Your task to perform on an android device: all mails in gmail Image 0: 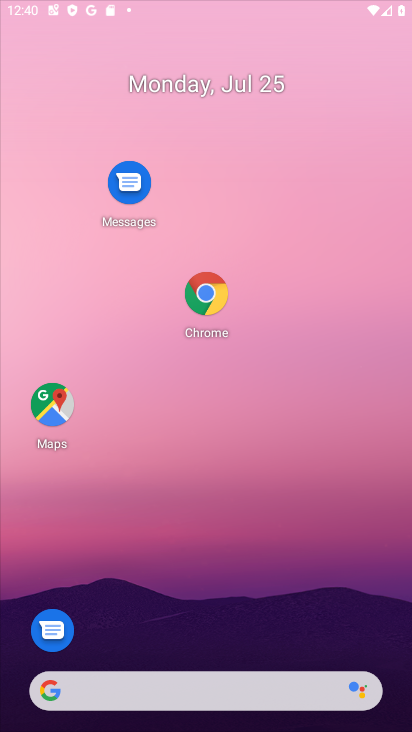
Step 0: drag from (214, 622) to (247, 83)
Your task to perform on an android device: all mails in gmail Image 1: 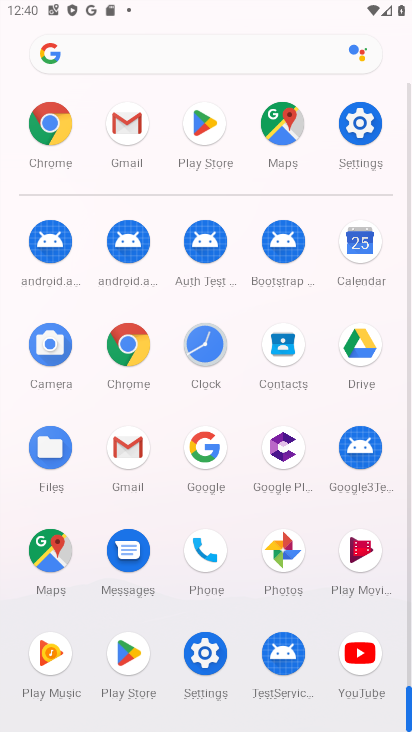
Step 1: click (127, 448)
Your task to perform on an android device: all mails in gmail Image 2: 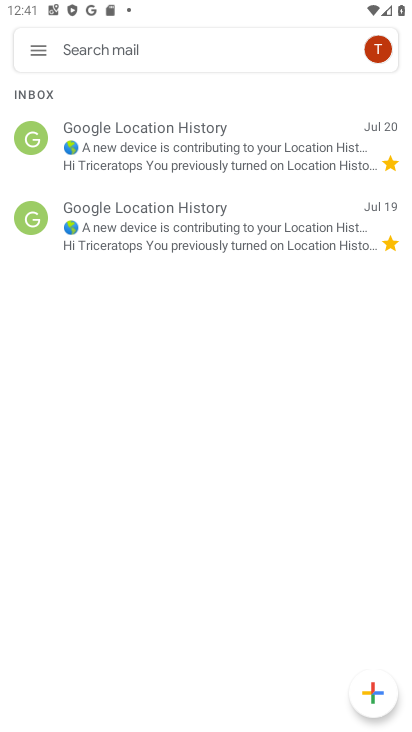
Step 2: click (41, 49)
Your task to perform on an android device: all mails in gmail Image 3: 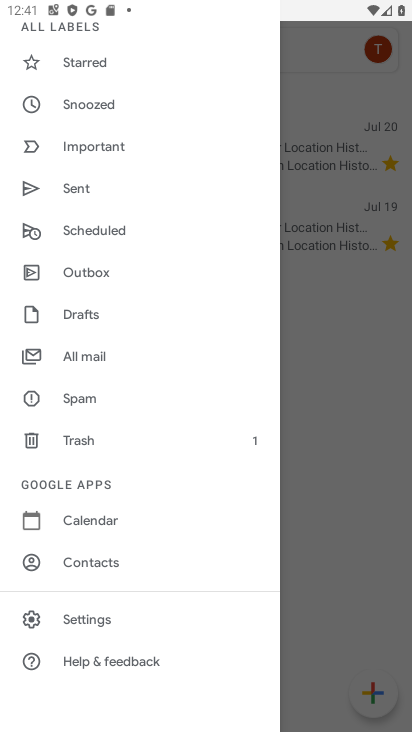
Step 3: click (95, 360)
Your task to perform on an android device: all mails in gmail Image 4: 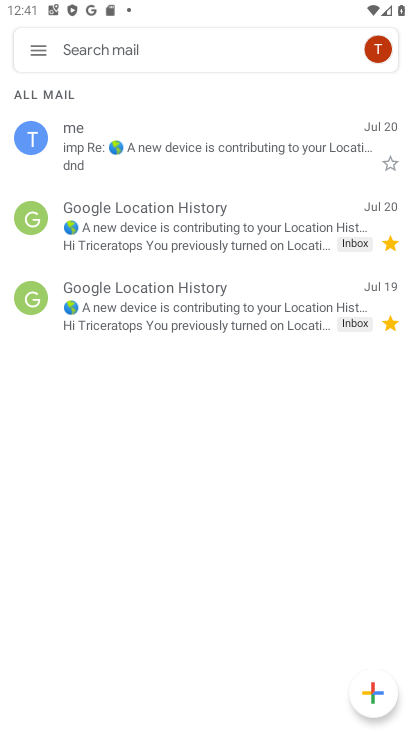
Step 4: task complete